Your task to perform on an android device: set an alarm Image 0: 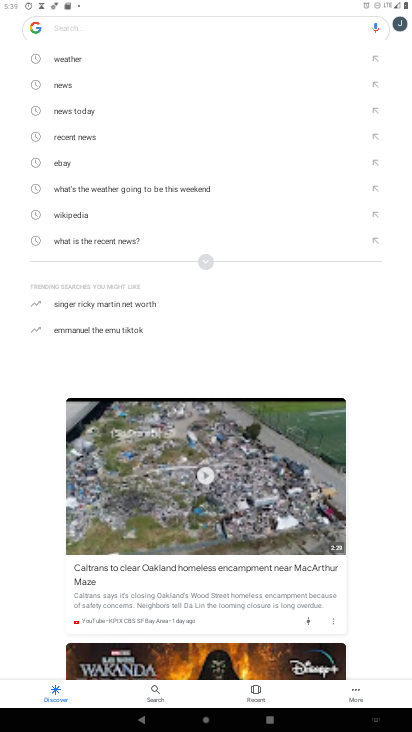
Step 0: drag from (178, 631) to (288, 171)
Your task to perform on an android device: set an alarm Image 1: 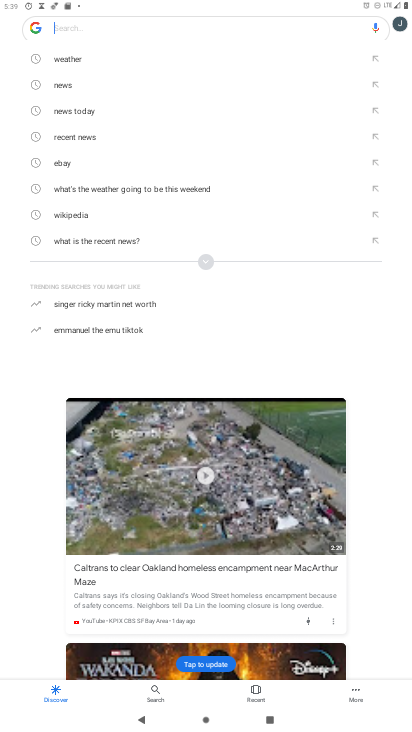
Step 1: press home button
Your task to perform on an android device: set an alarm Image 2: 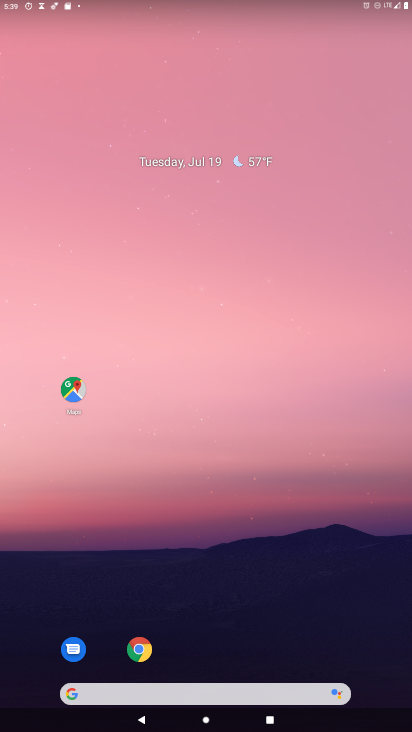
Step 2: click (208, 658)
Your task to perform on an android device: set an alarm Image 3: 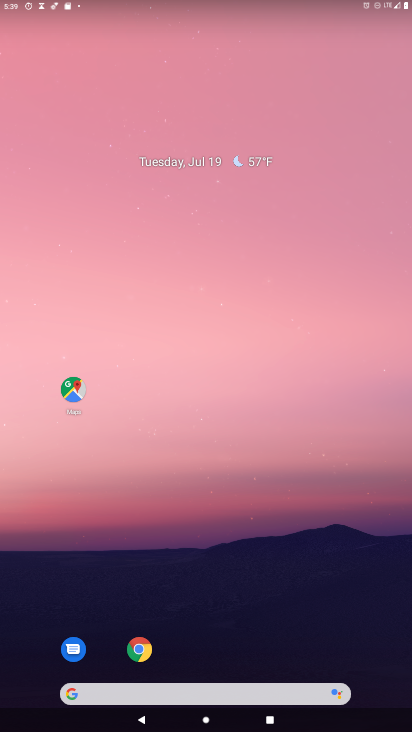
Step 3: drag from (193, 574) to (193, 131)
Your task to perform on an android device: set an alarm Image 4: 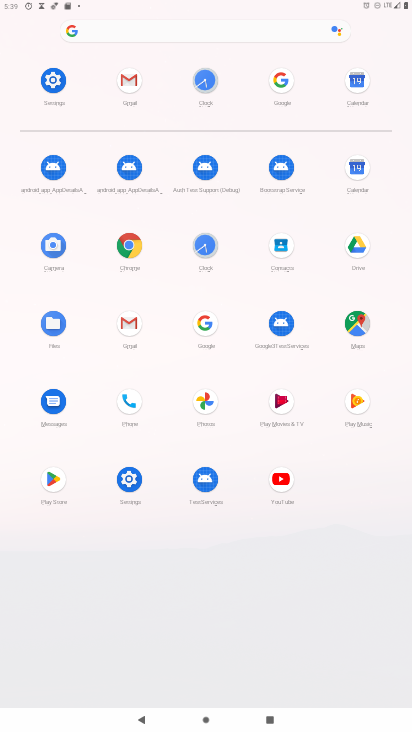
Step 4: click (206, 88)
Your task to perform on an android device: set an alarm Image 5: 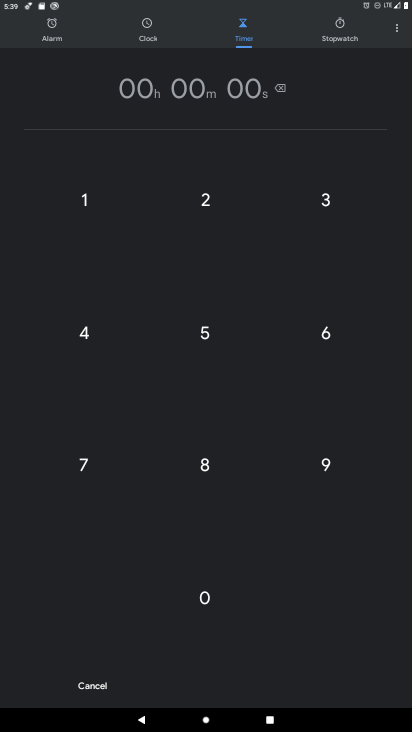
Step 5: click (46, 36)
Your task to perform on an android device: set an alarm Image 6: 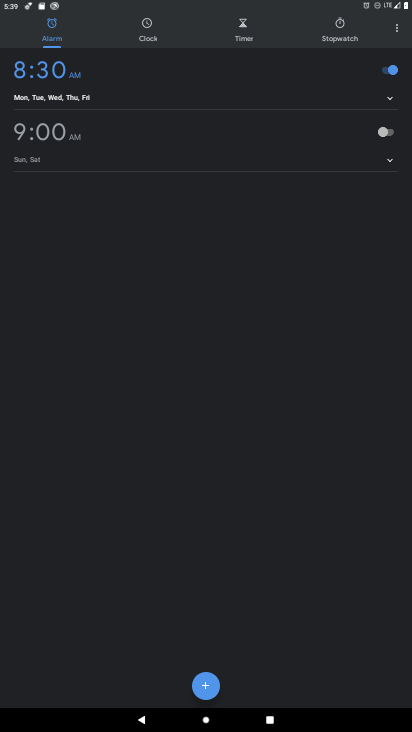
Step 6: click (387, 127)
Your task to perform on an android device: set an alarm Image 7: 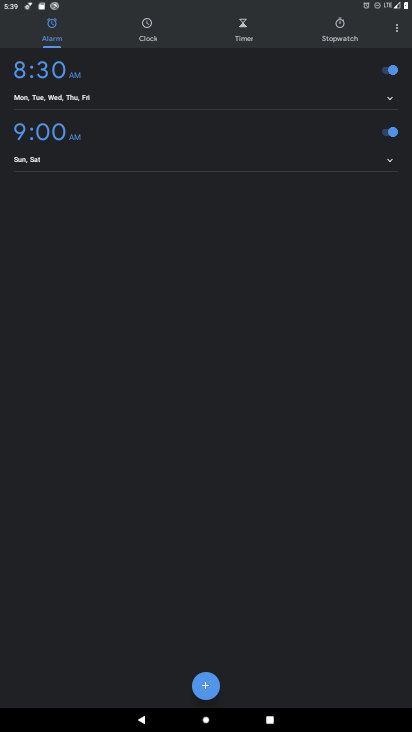
Step 7: task complete